Your task to perform on an android device: refresh tabs in the chrome app Image 0: 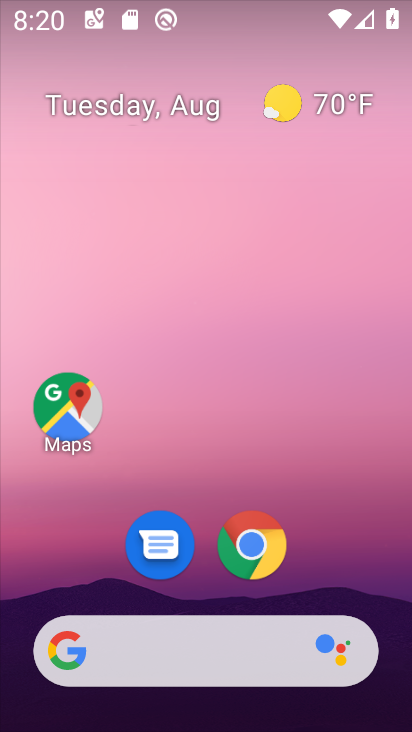
Step 0: drag from (248, 627) to (244, 104)
Your task to perform on an android device: refresh tabs in the chrome app Image 1: 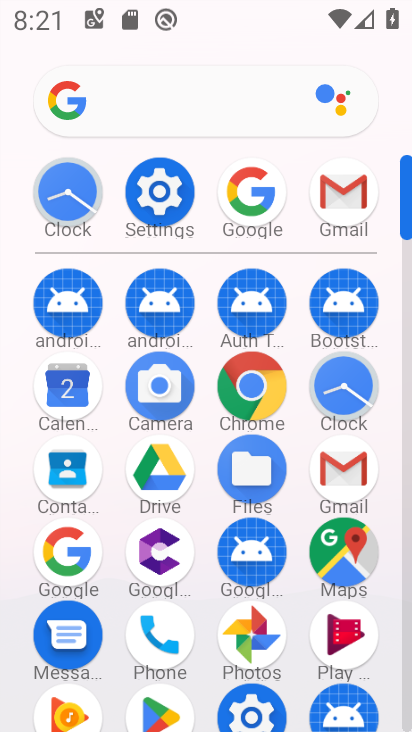
Step 1: click (259, 380)
Your task to perform on an android device: refresh tabs in the chrome app Image 2: 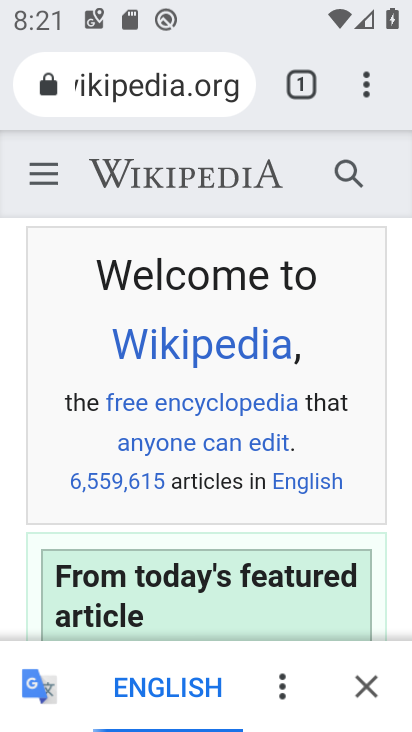
Step 2: click (369, 93)
Your task to perform on an android device: refresh tabs in the chrome app Image 3: 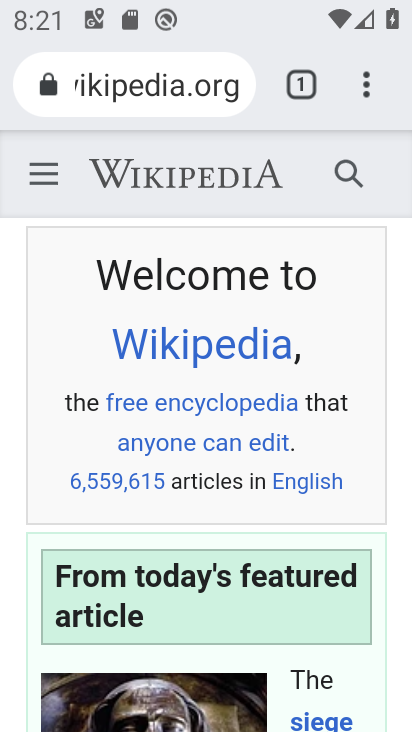
Step 3: task complete